Your task to perform on an android device: Search for razer naga on bestbuy.com, select the first entry, and add it to the cart. Image 0: 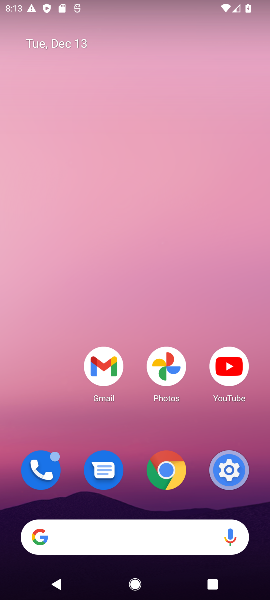
Step 0: click (78, 537)
Your task to perform on an android device: Search for razer naga on bestbuy.com, select the first entry, and add it to the cart. Image 1: 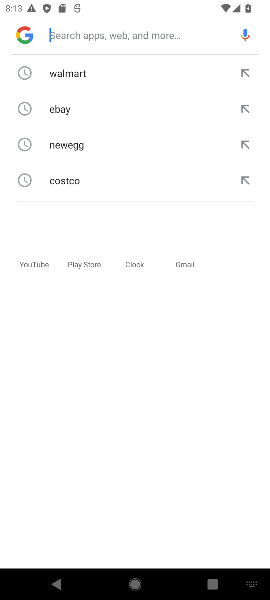
Step 1: type "bestbuy.com"
Your task to perform on an android device: Search for razer naga on bestbuy.com, select the first entry, and add it to the cart. Image 2: 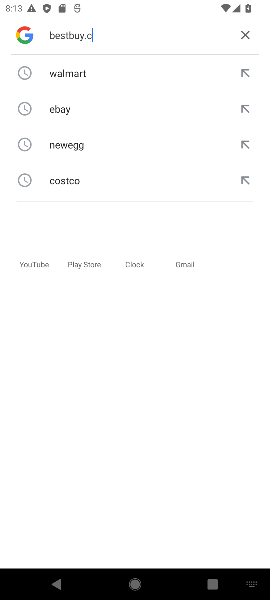
Step 2: press enter
Your task to perform on an android device: Search for razer naga on bestbuy.com, select the first entry, and add it to the cart. Image 3: 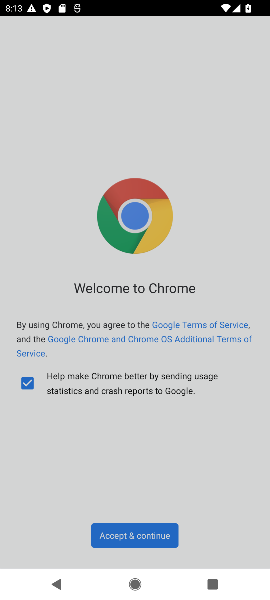
Step 3: click (136, 539)
Your task to perform on an android device: Search for razer naga on bestbuy.com, select the first entry, and add it to the cart. Image 4: 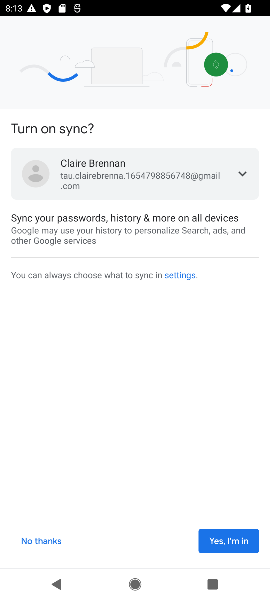
Step 4: click (225, 543)
Your task to perform on an android device: Search for razer naga on bestbuy.com, select the first entry, and add it to the cart. Image 5: 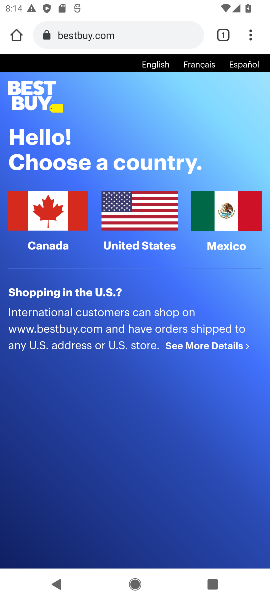
Step 5: click (50, 216)
Your task to perform on an android device: Search for razer naga on bestbuy.com, select the first entry, and add it to the cart. Image 6: 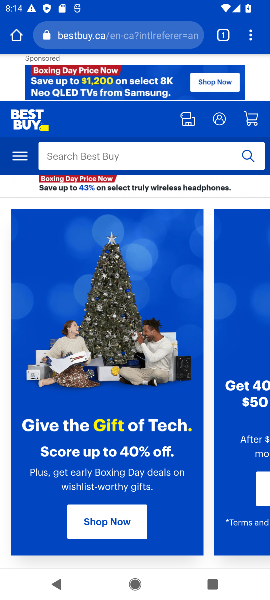
Step 6: click (85, 154)
Your task to perform on an android device: Search for razer naga on bestbuy.com, select the first entry, and add it to the cart. Image 7: 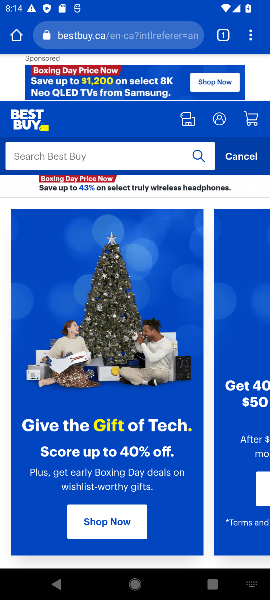
Step 7: type "razer naga"
Your task to perform on an android device: Search for razer naga on bestbuy.com, select the first entry, and add it to the cart. Image 8: 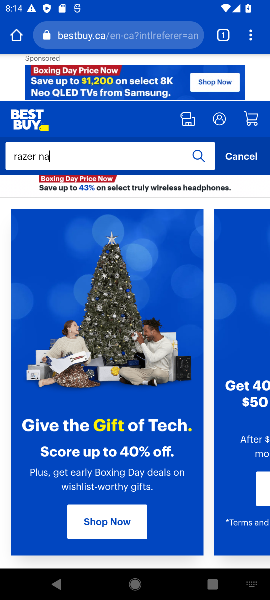
Step 8: press enter
Your task to perform on an android device: Search for razer naga on bestbuy.com, select the first entry, and add it to the cart. Image 9: 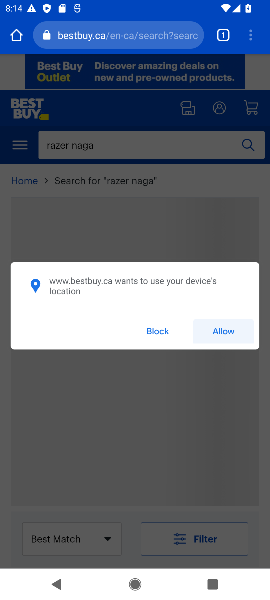
Step 9: click (156, 332)
Your task to perform on an android device: Search for razer naga on bestbuy.com, select the first entry, and add it to the cart. Image 10: 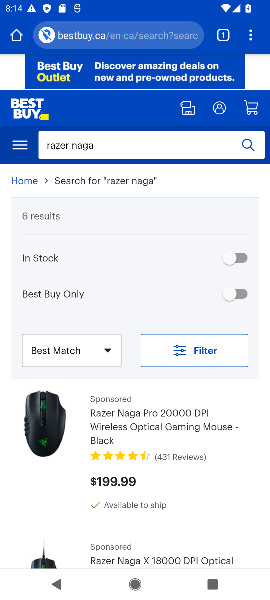
Step 10: drag from (162, 475) to (155, 270)
Your task to perform on an android device: Search for razer naga on bestbuy.com, select the first entry, and add it to the cart. Image 11: 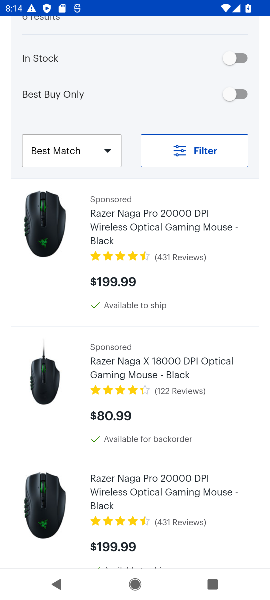
Step 11: click (119, 221)
Your task to perform on an android device: Search for razer naga on bestbuy.com, select the first entry, and add it to the cart. Image 12: 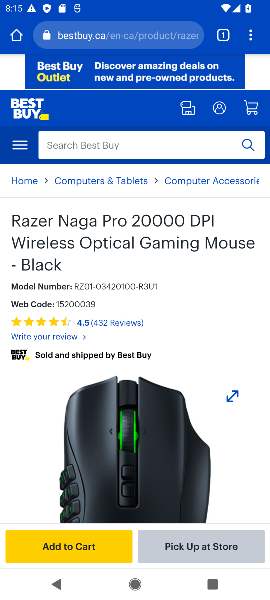
Step 12: click (62, 553)
Your task to perform on an android device: Search for razer naga on bestbuy.com, select the first entry, and add it to the cart. Image 13: 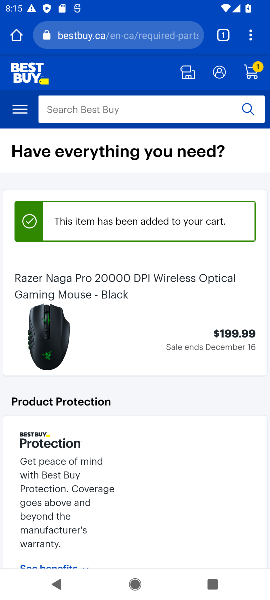
Step 13: task complete